Your task to perform on an android device: Open the calendar app, open the side menu, and click the "Day" option Image 0: 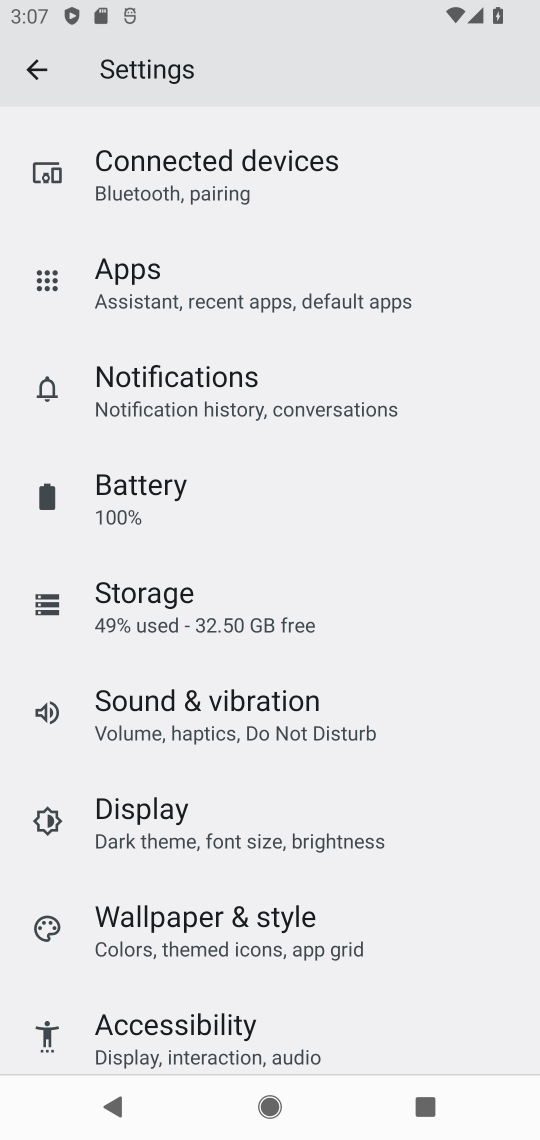
Step 0: press home button
Your task to perform on an android device: Open the calendar app, open the side menu, and click the "Day" option Image 1: 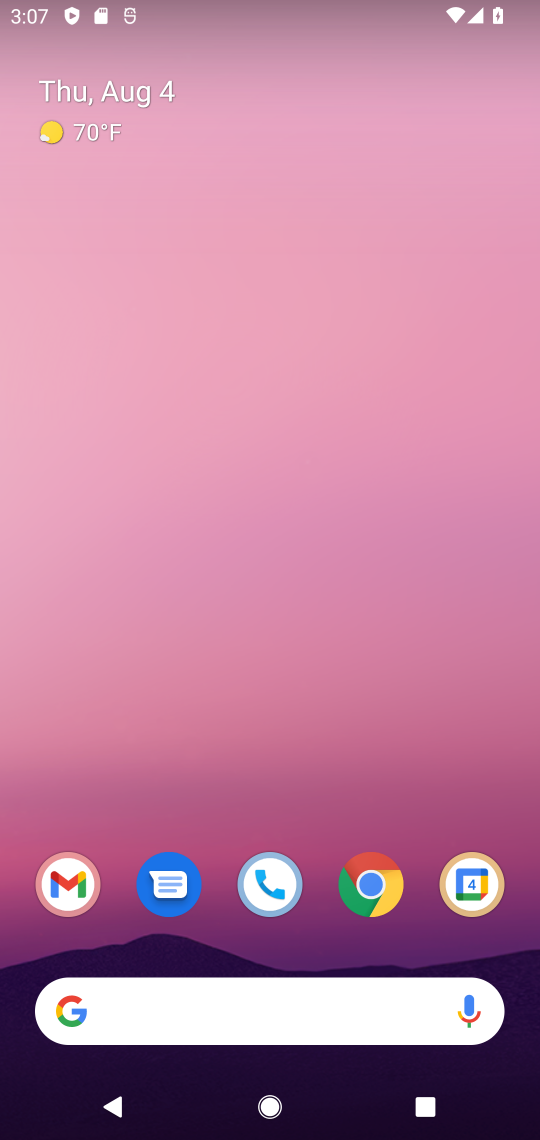
Step 1: drag from (190, 958) to (245, 196)
Your task to perform on an android device: Open the calendar app, open the side menu, and click the "Day" option Image 2: 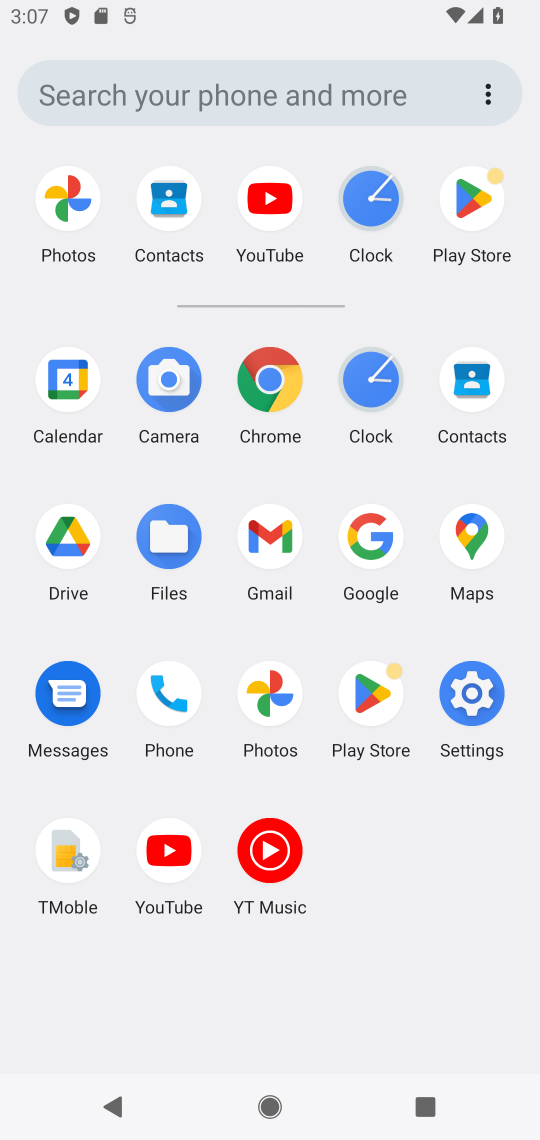
Step 2: click (42, 379)
Your task to perform on an android device: Open the calendar app, open the side menu, and click the "Day" option Image 3: 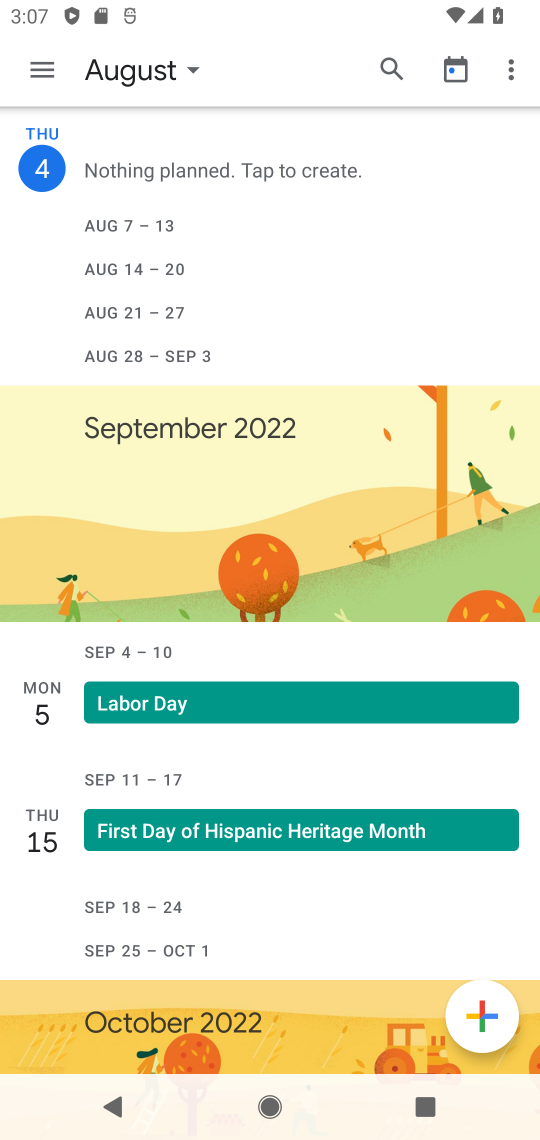
Step 3: click (25, 66)
Your task to perform on an android device: Open the calendar app, open the side menu, and click the "Day" option Image 4: 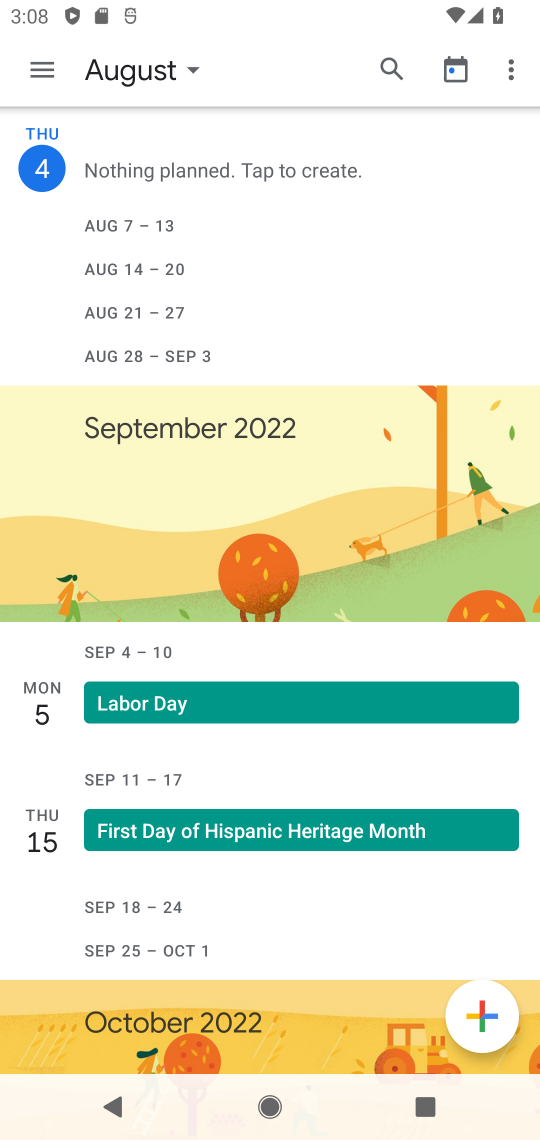
Step 4: click (54, 70)
Your task to perform on an android device: Open the calendar app, open the side menu, and click the "Day" option Image 5: 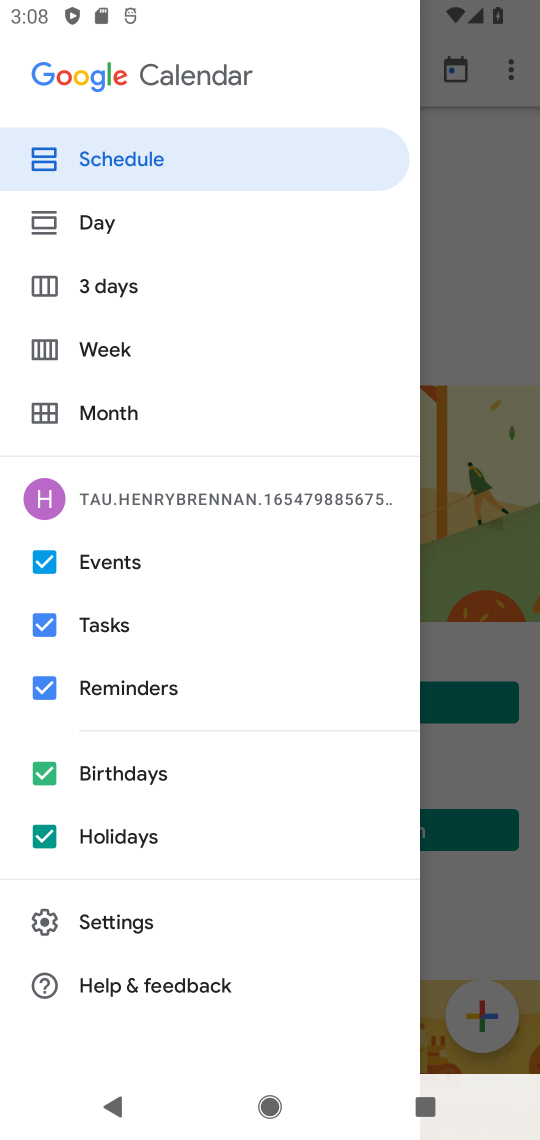
Step 5: click (96, 219)
Your task to perform on an android device: Open the calendar app, open the side menu, and click the "Day" option Image 6: 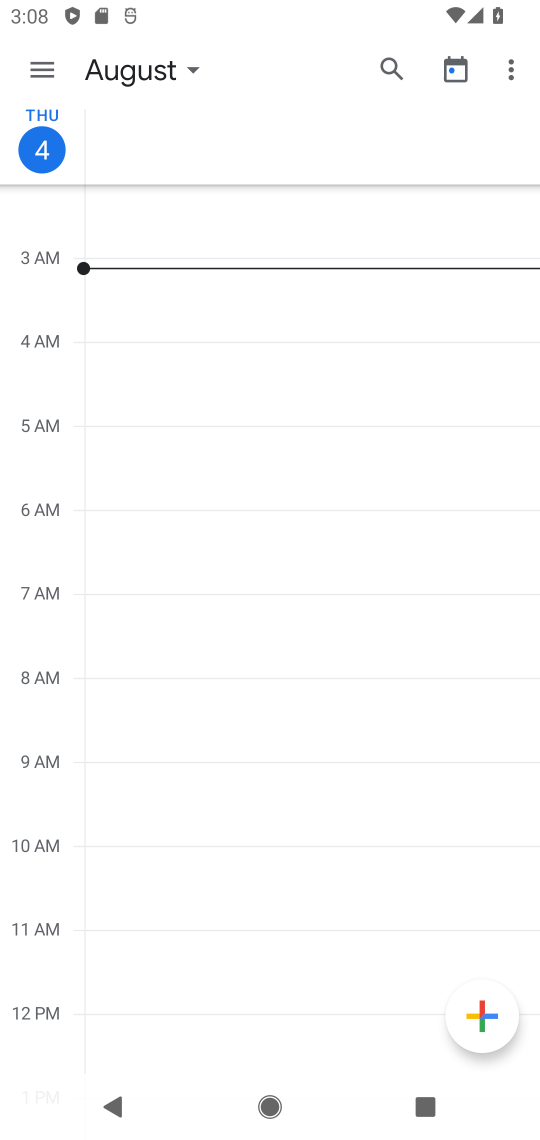
Step 6: task complete